Your task to perform on an android device: install app "Clock" Image 0: 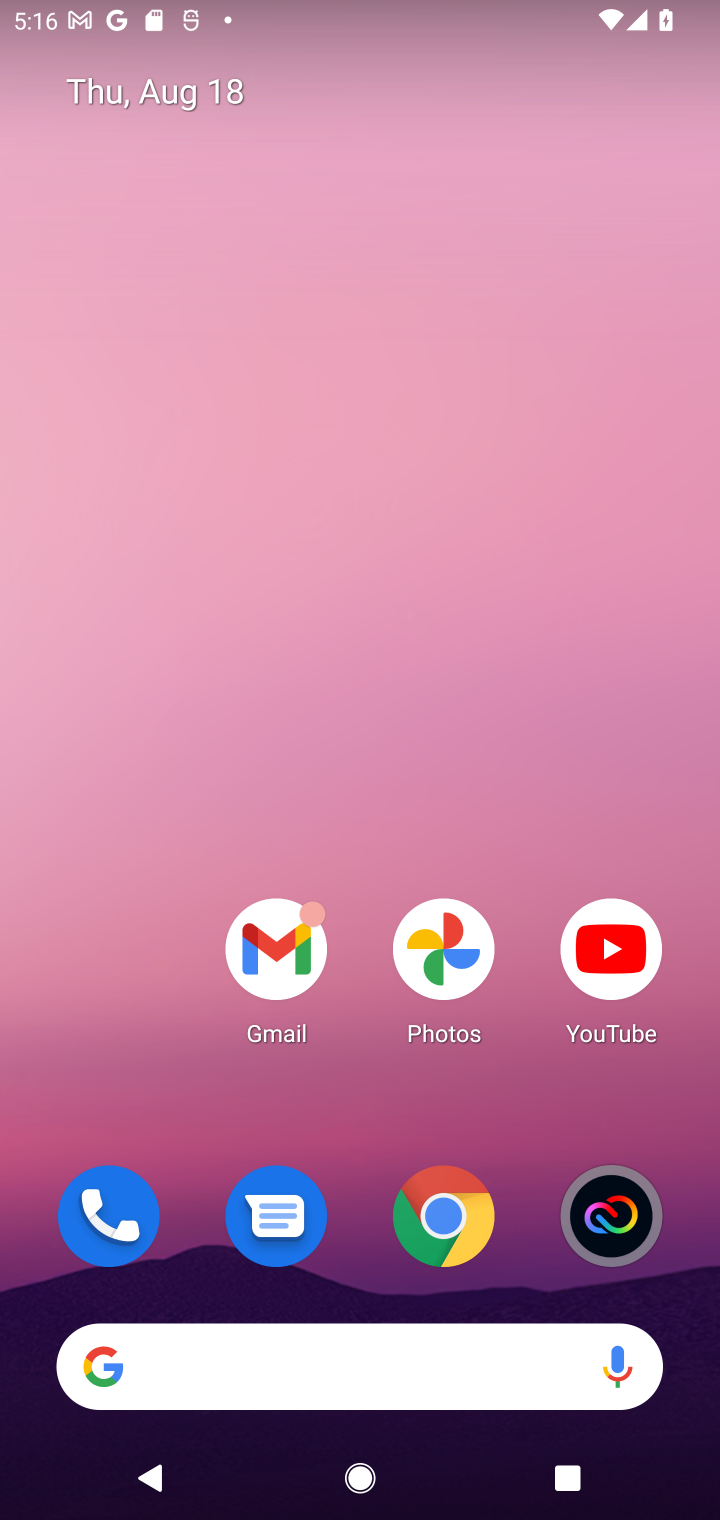
Step 0: drag from (544, 1276) to (513, 195)
Your task to perform on an android device: install app "Clock" Image 1: 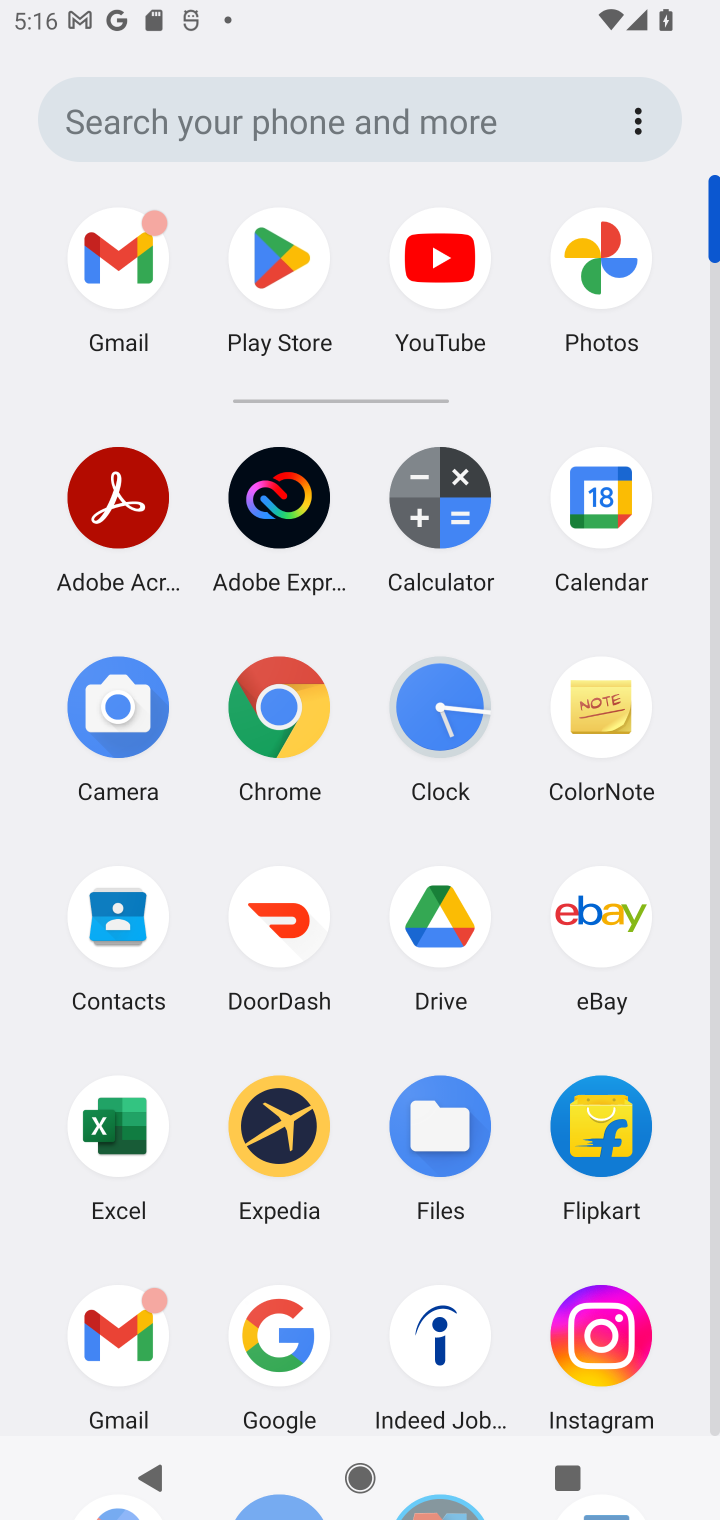
Step 1: drag from (514, 1355) to (516, 1201)
Your task to perform on an android device: install app "Clock" Image 2: 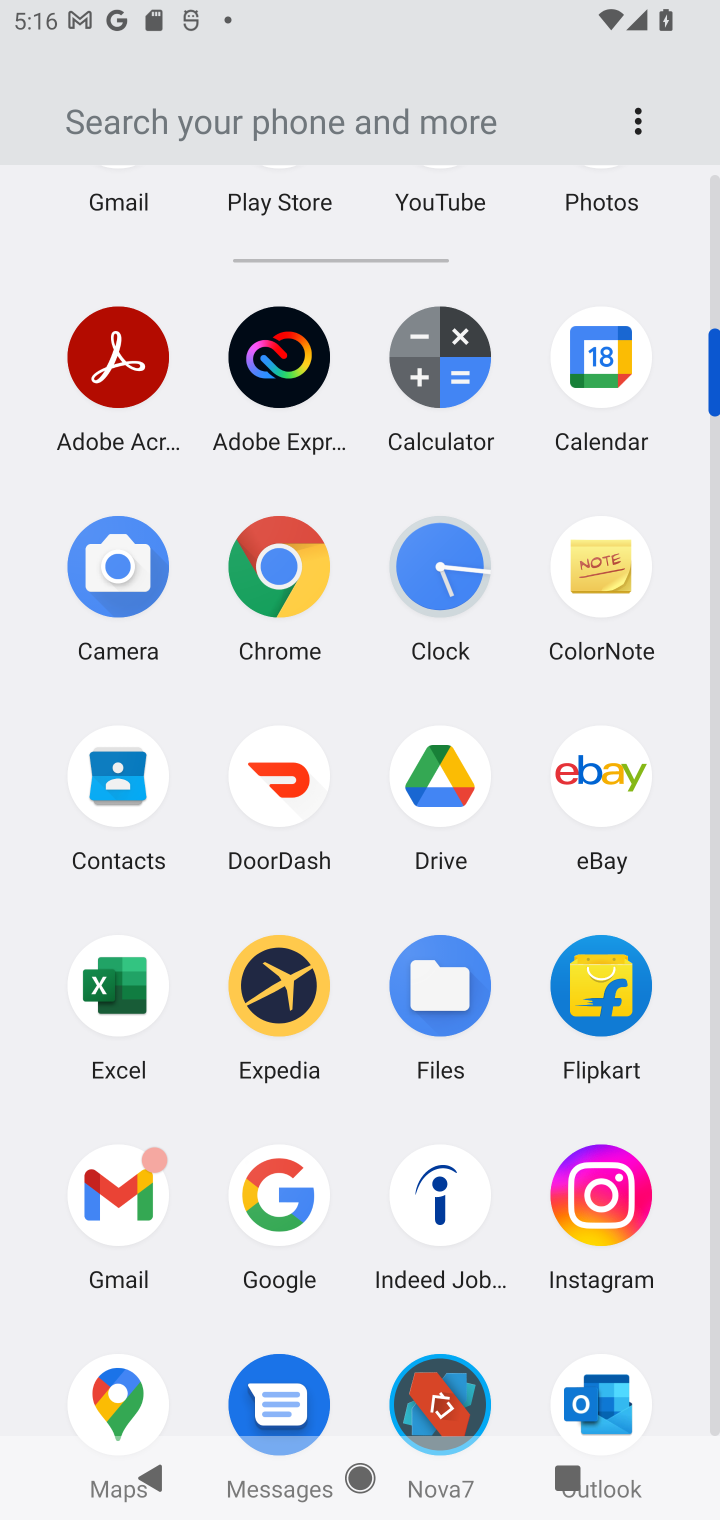
Step 2: click (444, 572)
Your task to perform on an android device: install app "Clock" Image 3: 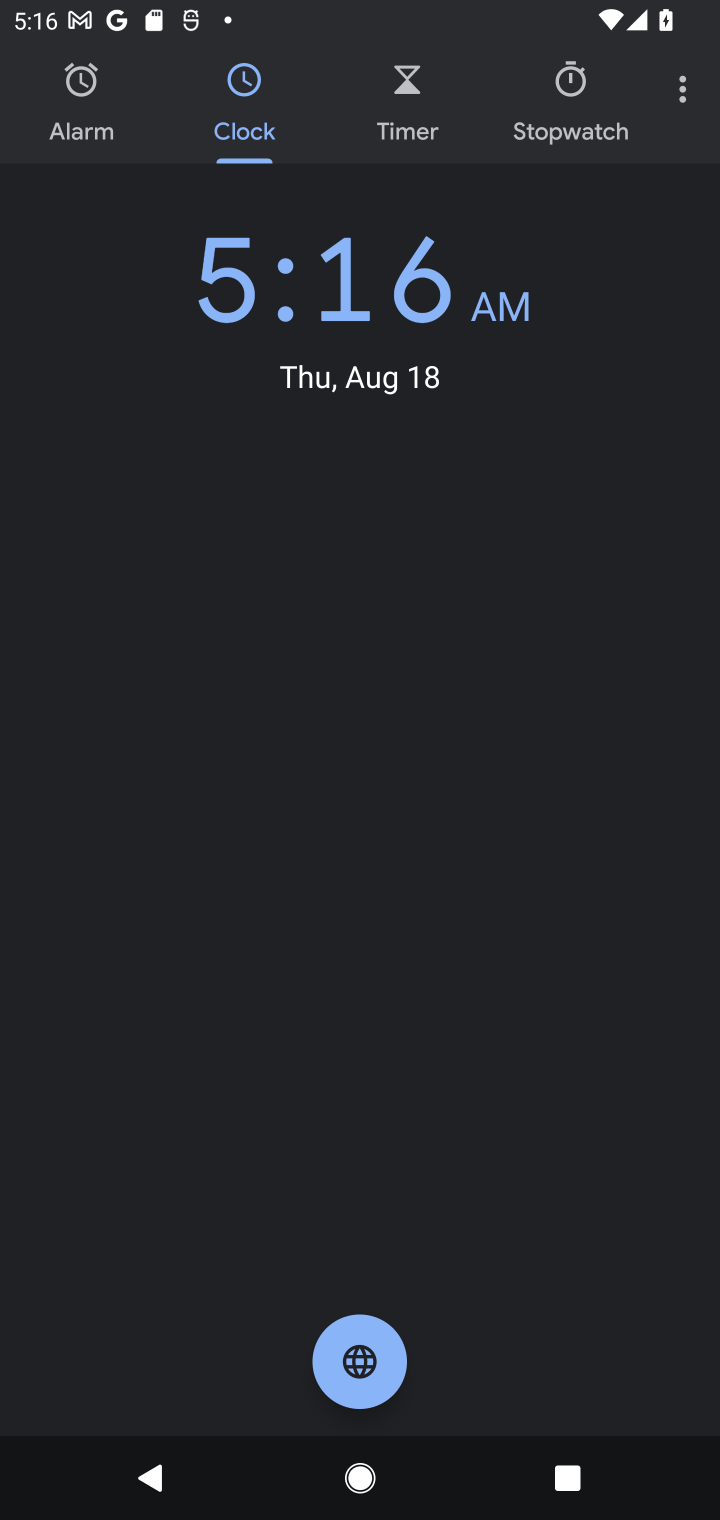
Step 3: task complete